Your task to perform on an android device: Show me popular videos on Youtube Image 0: 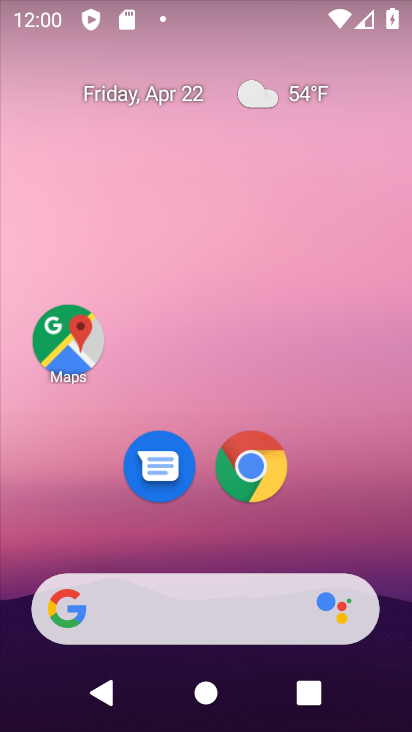
Step 0: drag from (325, 541) to (285, 63)
Your task to perform on an android device: Show me popular videos on Youtube Image 1: 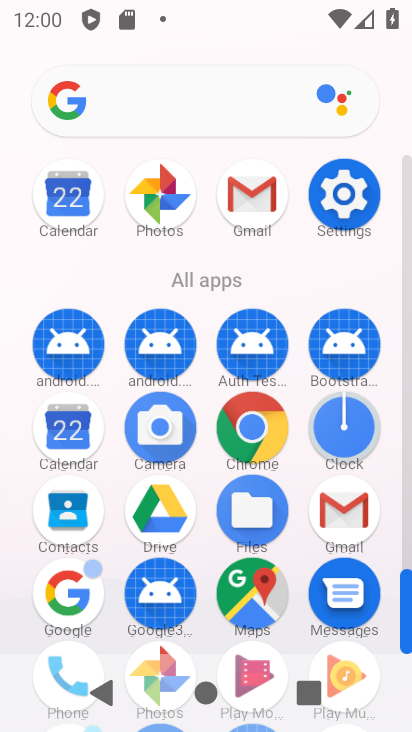
Step 1: drag from (312, 544) to (307, 209)
Your task to perform on an android device: Show me popular videos on Youtube Image 2: 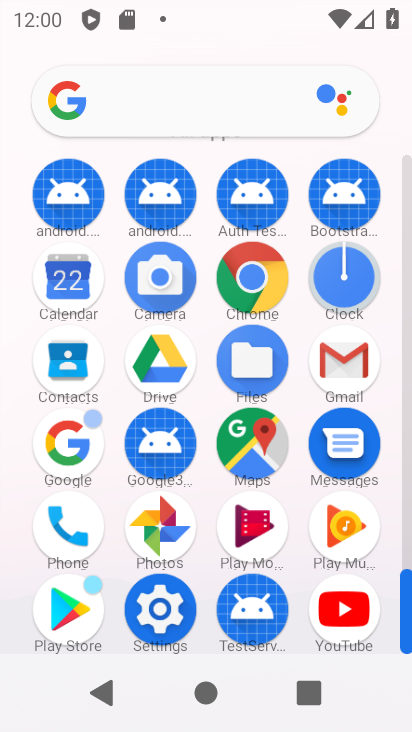
Step 2: click (338, 628)
Your task to perform on an android device: Show me popular videos on Youtube Image 3: 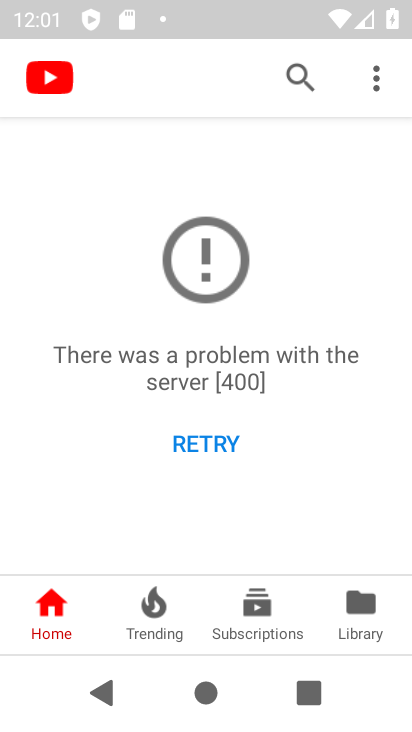
Step 3: click (369, 625)
Your task to perform on an android device: Show me popular videos on Youtube Image 4: 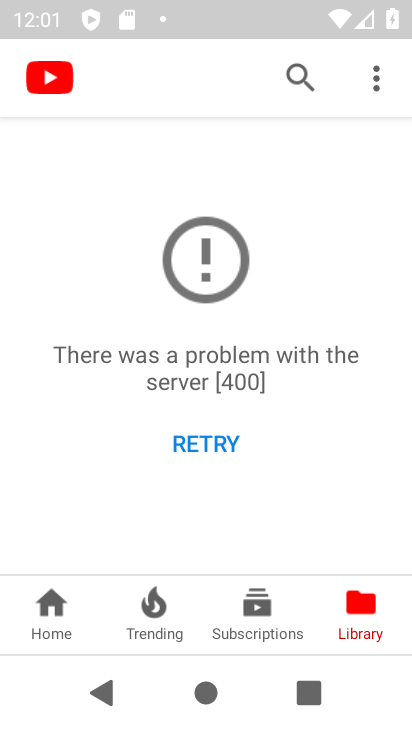
Step 4: click (199, 447)
Your task to perform on an android device: Show me popular videos on Youtube Image 5: 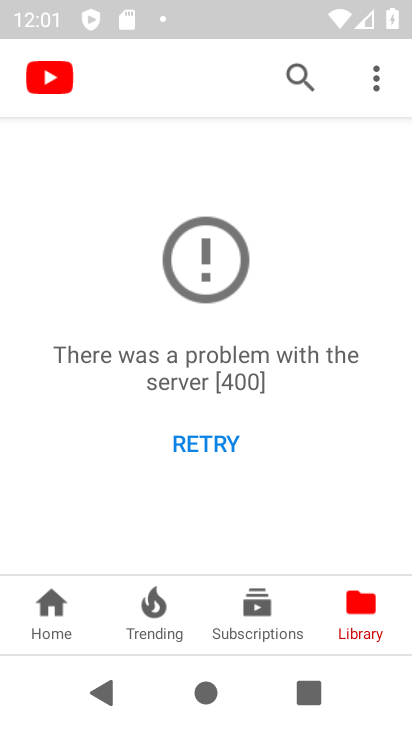
Step 5: task complete